Your task to perform on an android device: Open Yahoo.com Image 0: 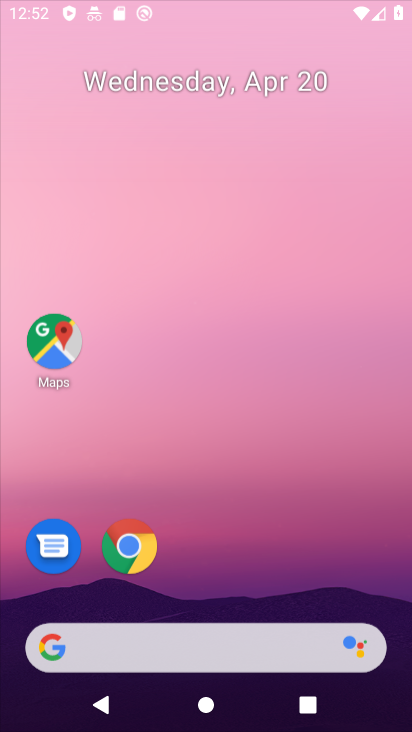
Step 0: click (147, 546)
Your task to perform on an android device: Open Yahoo.com Image 1: 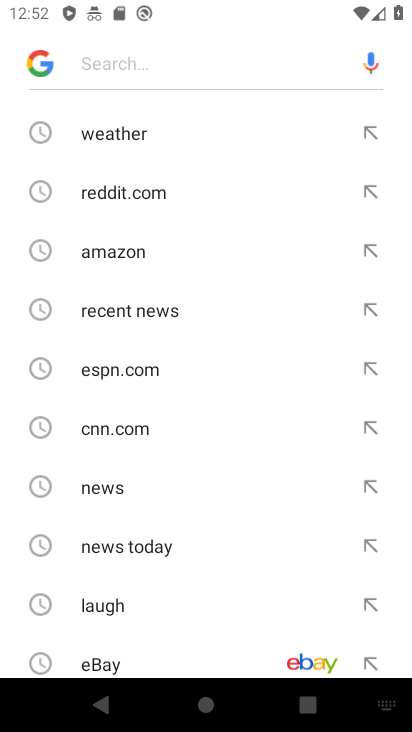
Step 1: click (208, 251)
Your task to perform on an android device: Open Yahoo.com Image 2: 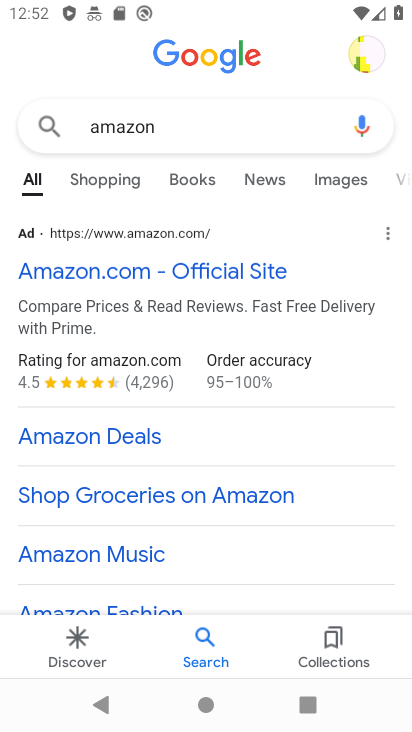
Step 2: click (121, 278)
Your task to perform on an android device: Open Yahoo.com Image 3: 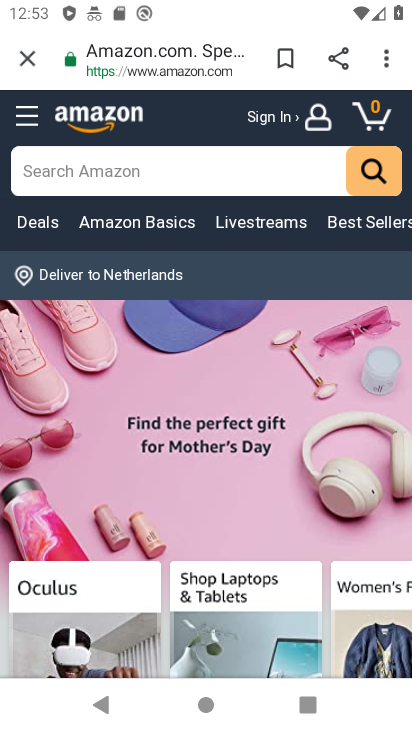
Step 3: task complete